Your task to perform on an android device: visit the assistant section in the google photos Image 0: 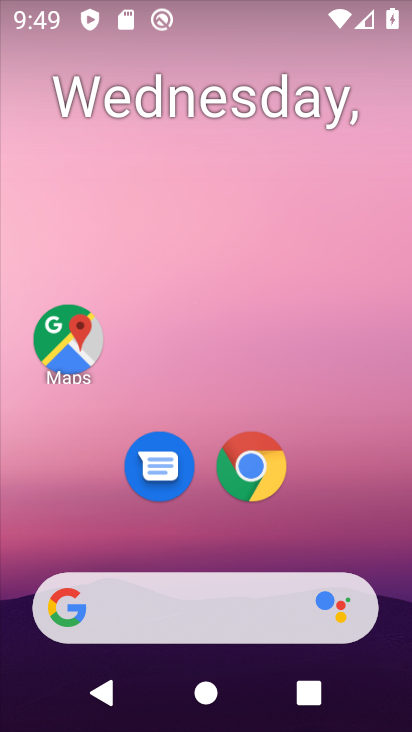
Step 0: drag from (215, 530) to (188, 2)
Your task to perform on an android device: visit the assistant section in the google photos Image 1: 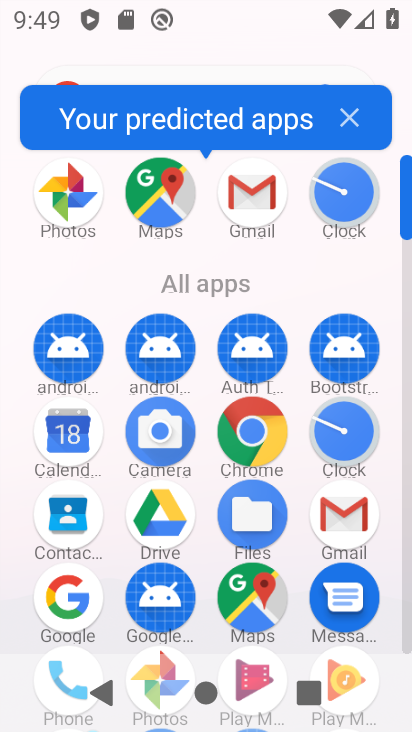
Step 1: drag from (298, 601) to (283, 329)
Your task to perform on an android device: visit the assistant section in the google photos Image 2: 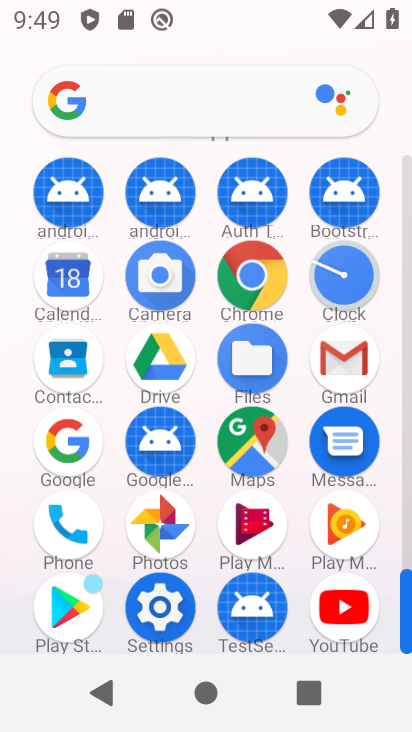
Step 2: click (169, 535)
Your task to perform on an android device: visit the assistant section in the google photos Image 3: 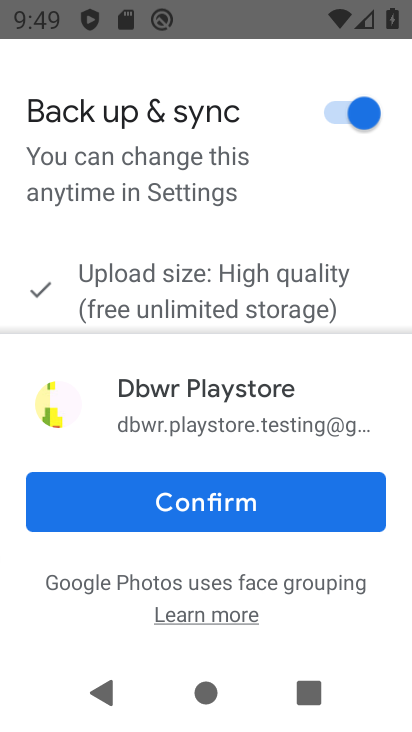
Step 3: click (216, 514)
Your task to perform on an android device: visit the assistant section in the google photos Image 4: 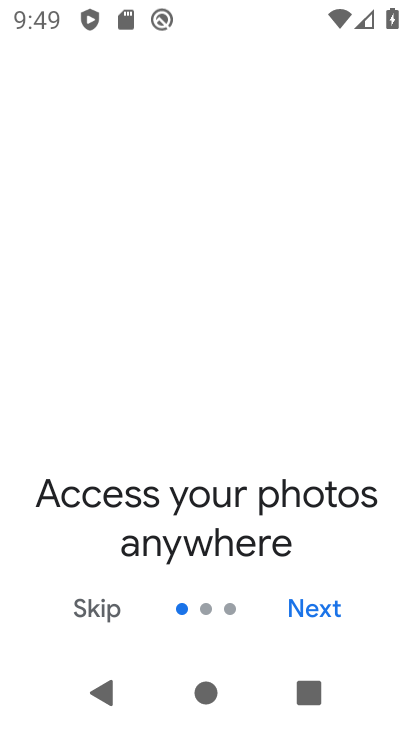
Step 4: click (305, 603)
Your task to perform on an android device: visit the assistant section in the google photos Image 5: 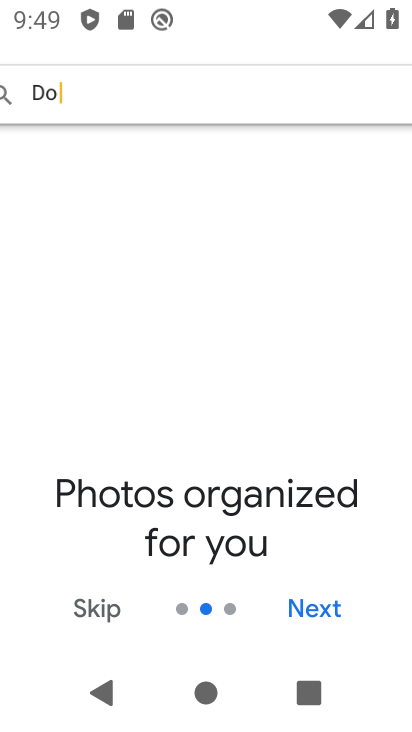
Step 5: click (305, 603)
Your task to perform on an android device: visit the assistant section in the google photos Image 6: 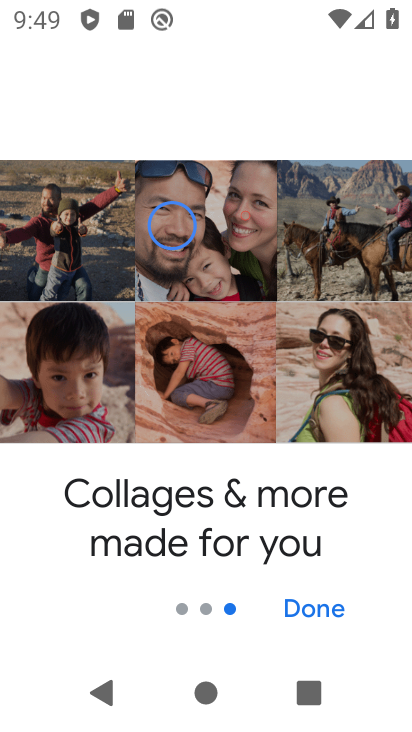
Step 6: click (311, 600)
Your task to perform on an android device: visit the assistant section in the google photos Image 7: 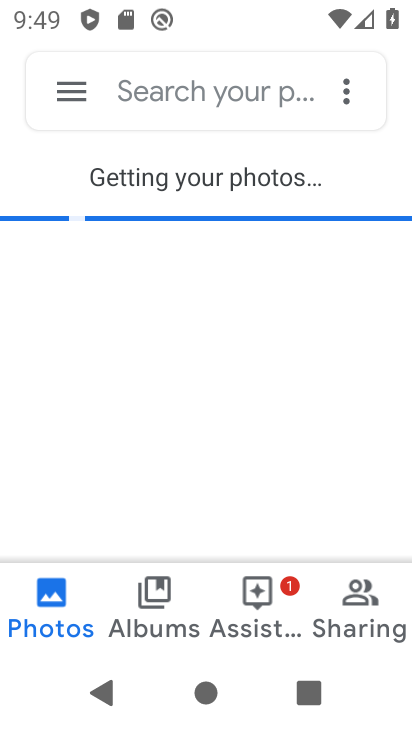
Step 7: click (260, 622)
Your task to perform on an android device: visit the assistant section in the google photos Image 8: 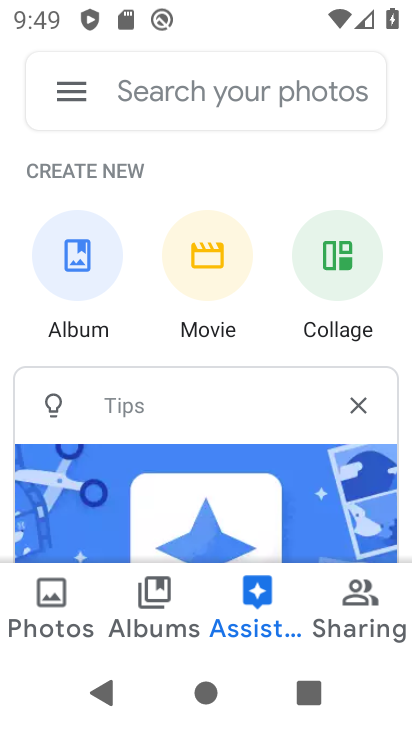
Step 8: task complete